Your task to perform on an android device: turn on bluetooth scan Image 0: 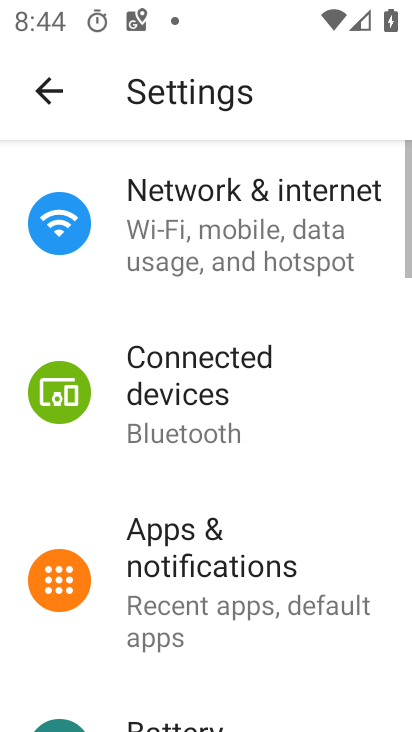
Step 0: press home button
Your task to perform on an android device: turn on bluetooth scan Image 1: 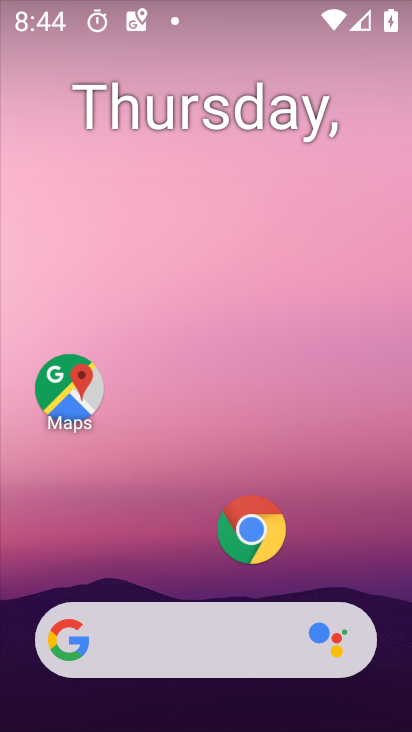
Step 1: drag from (176, 578) to (216, 76)
Your task to perform on an android device: turn on bluetooth scan Image 2: 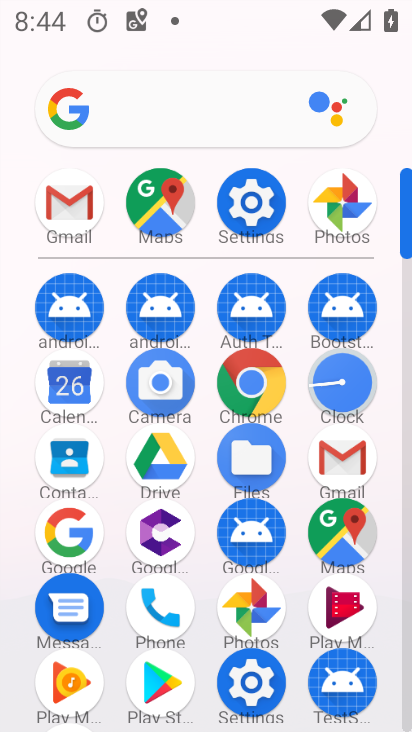
Step 2: click (250, 195)
Your task to perform on an android device: turn on bluetooth scan Image 3: 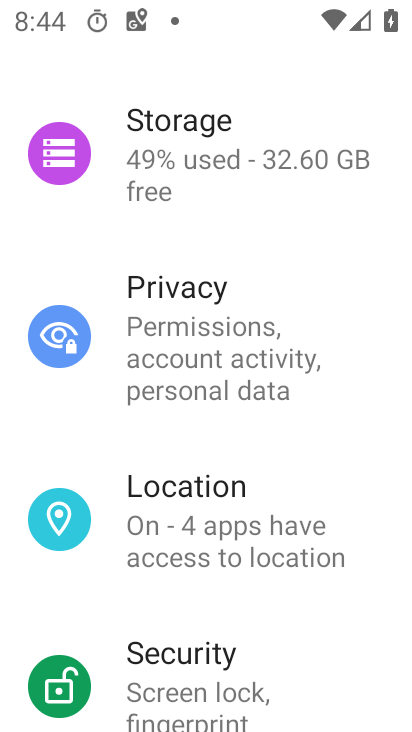
Step 3: click (191, 523)
Your task to perform on an android device: turn on bluetooth scan Image 4: 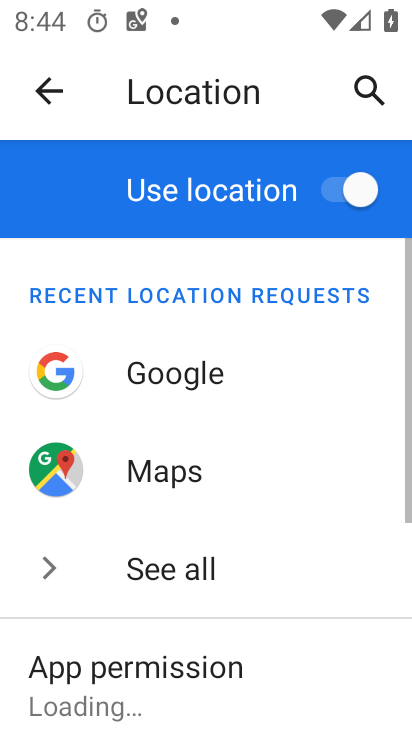
Step 4: drag from (230, 653) to (266, 116)
Your task to perform on an android device: turn on bluetooth scan Image 5: 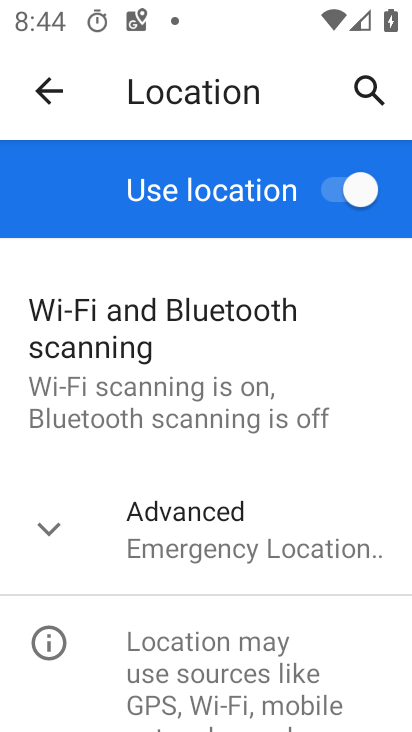
Step 5: click (229, 348)
Your task to perform on an android device: turn on bluetooth scan Image 6: 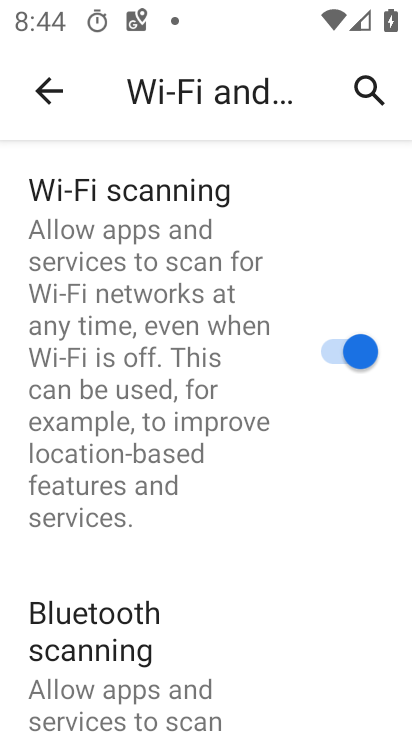
Step 6: drag from (226, 581) to (238, 82)
Your task to perform on an android device: turn on bluetooth scan Image 7: 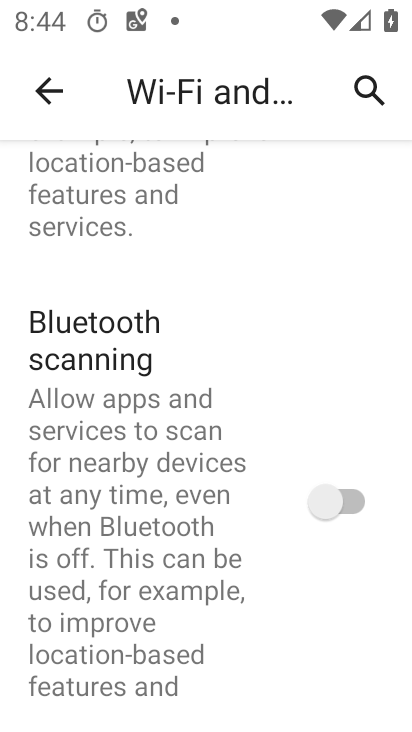
Step 7: click (347, 501)
Your task to perform on an android device: turn on bluetooth scan Image 8: 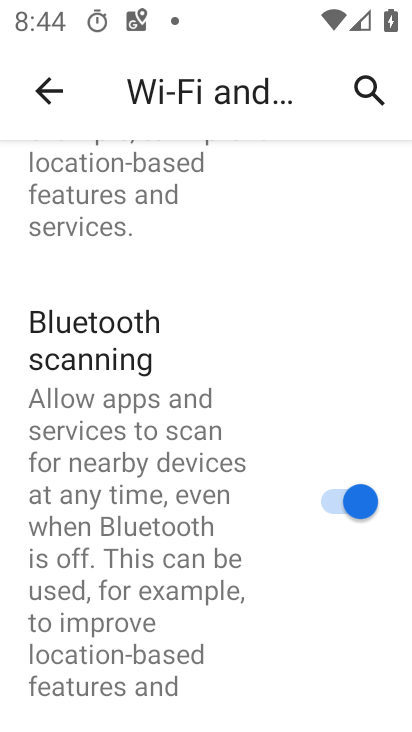
Step 8: task complete